Your task to perform on an android device: open wifi settings Image 0: 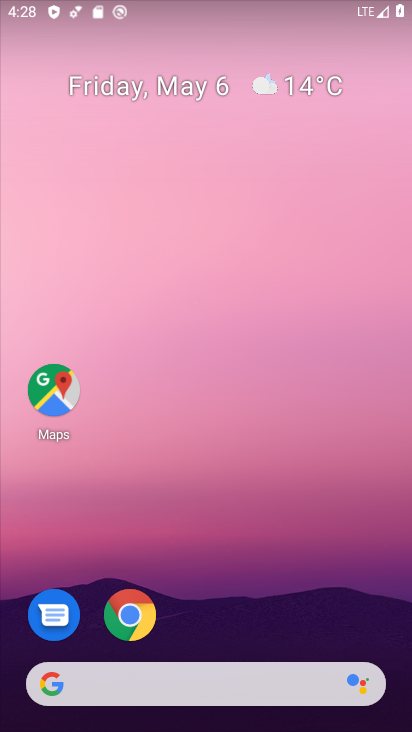
Step 0: drag from (206, 632) to (152, 255)
Your task to perform on an android device: open wifi settings Image 1: 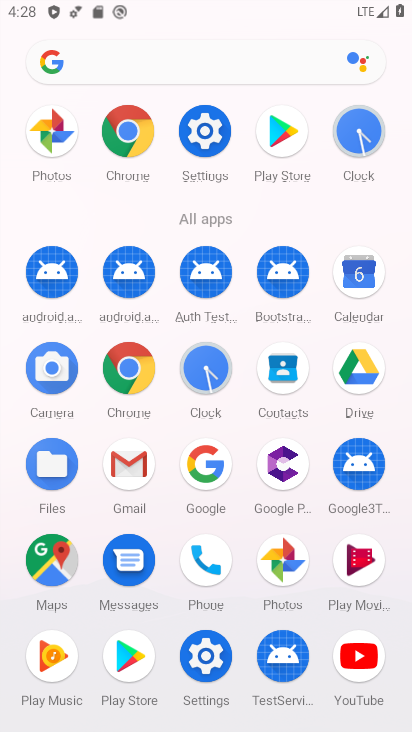
Step 1: click (194, 127)
Your task to perform on an android device: open wifi settings Image 2: 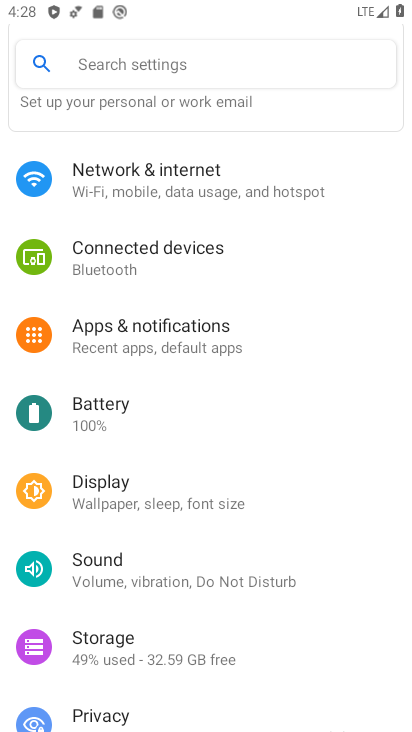
Step 2: click (171, 330)
Your task to perform on an android device: open wifi settings Image 3: 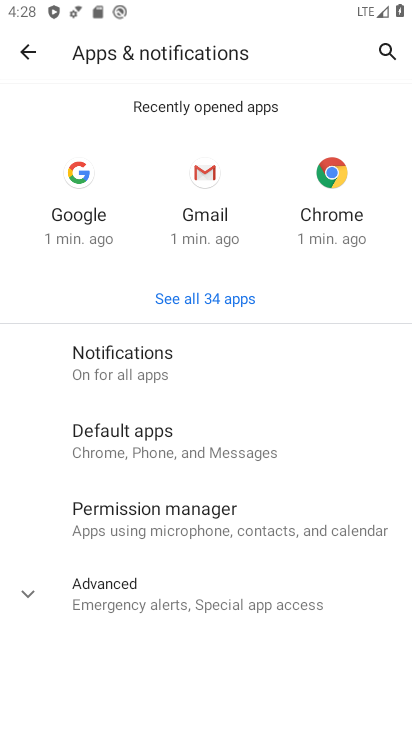
Step 3: press home button
Your task to perform on an android device: open wifi settings Image 4: 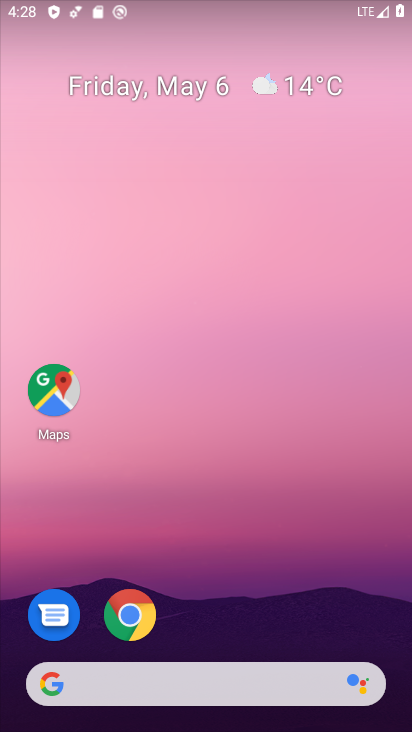
Step 4: drag from (214, 610) to (205, 294)
Your task to perform on an android device: open wifi settings Image 5: 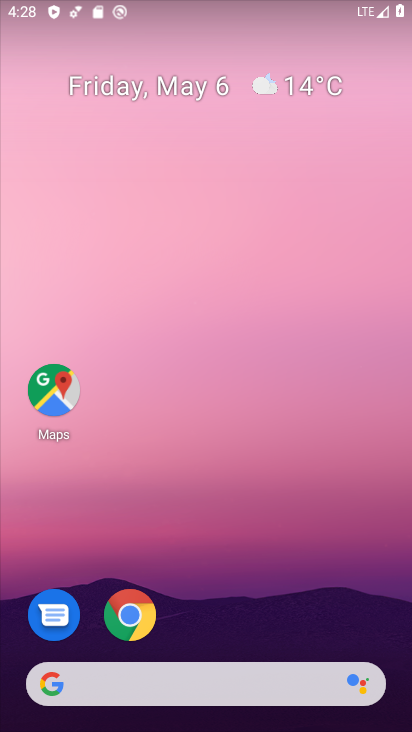
Step 5: drag from (230, 593) to (263, 0)
Your task to perform on an android device: open wifi settings Image 6: 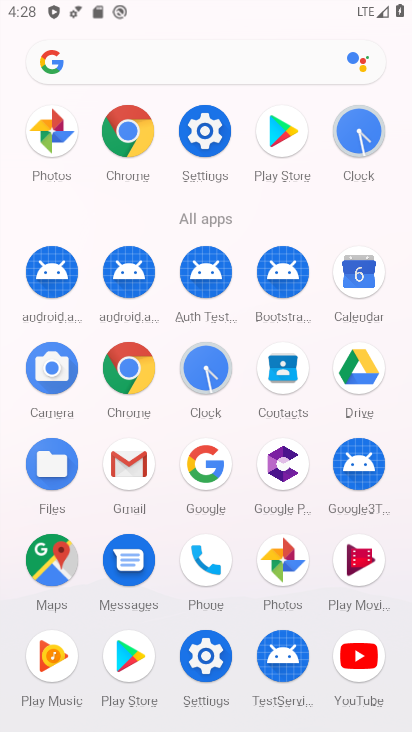
Step 6: click (201, 155)
Your task to perform on an android device: open wifi settings Image 7: 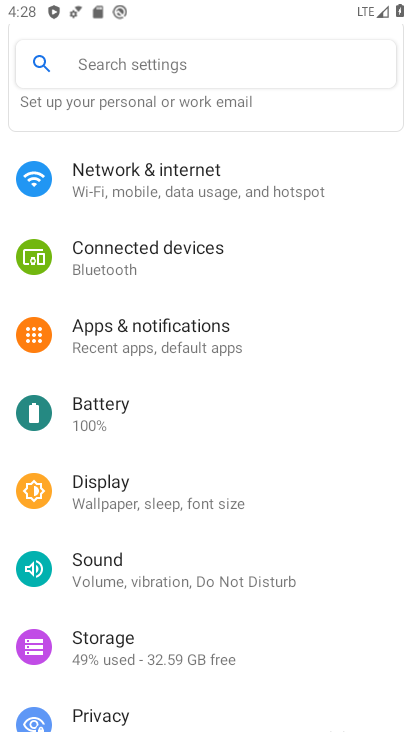
Step 7: click (201, 148)
Your task to perform on an android device: open wifi settings Image 8: 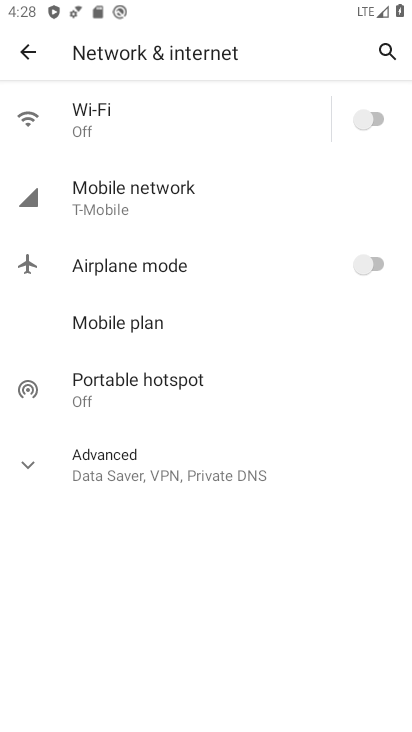
Step 8: click (184, 124)
Your task to perform on an android device: open wifi settings Image 9: 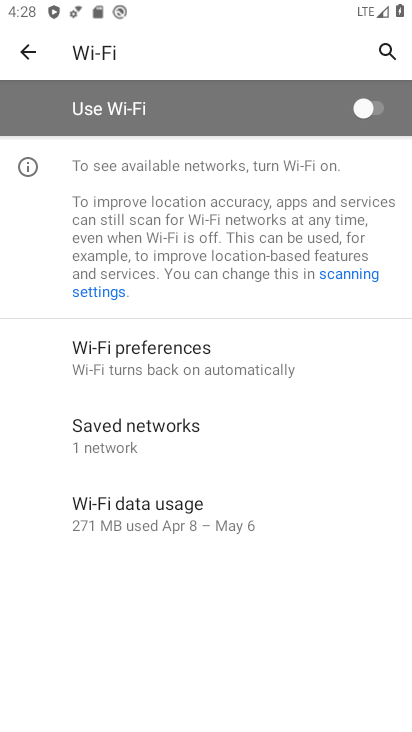
Step 9: click (341, 119)
Your task to perform on an android device: open wifi settings Image 10: 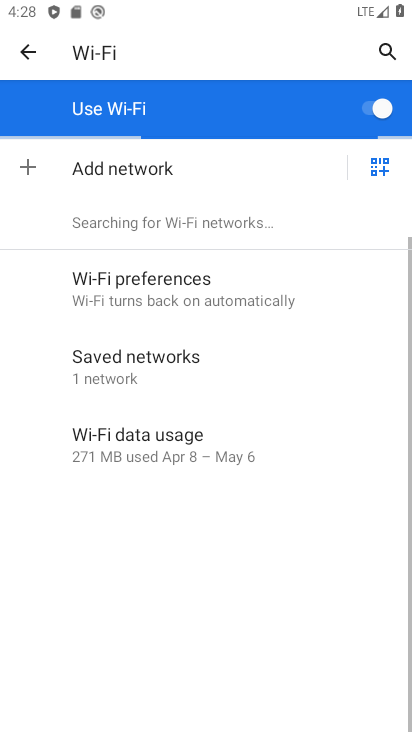
Step 10: task complete